Your task to perform on an android device: Open Chrome and go to settings Image 0: 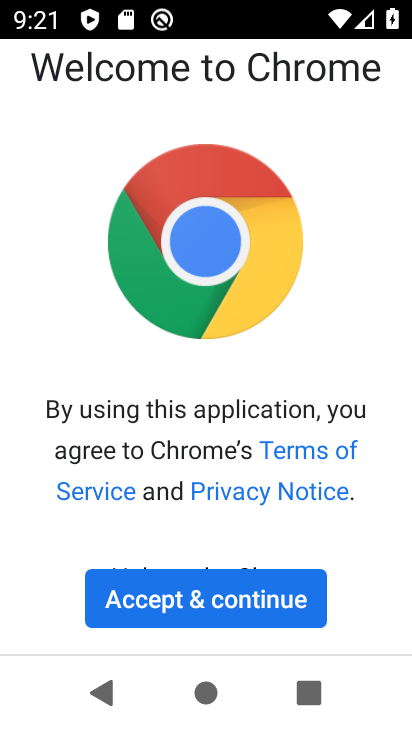
Step 0: click (267, 612)
Your task to perform on an android device: Open Chrome and go to settings Image 1: 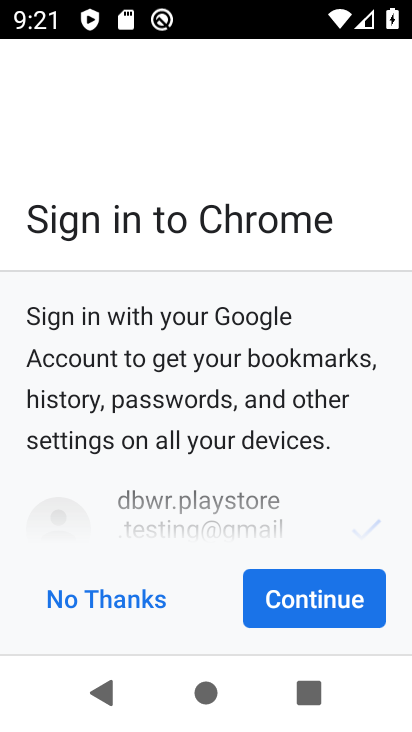
Step 1: click (321, 610)
Your task to perform on an android device: Open Chrome and go to settings Image 2: 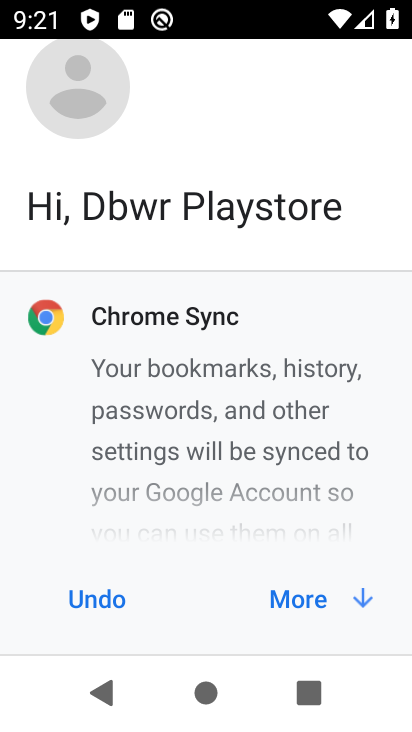
Step 2: click (321, 610)
Your task to perform on an android device: Open Chrome and go to settings Image 3: 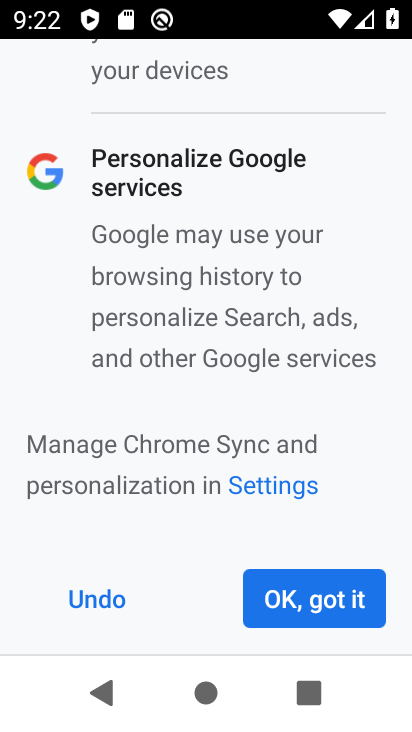
Step 3: click (320, 609)
Your task to perform on an android device: Open Chrome and go to settings Image 4: 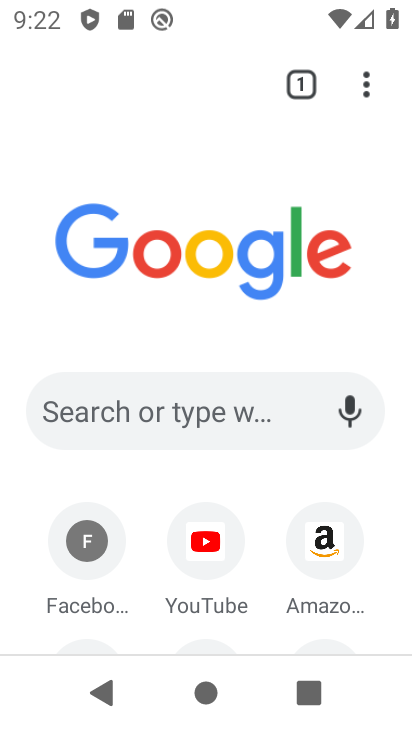
Step 4: task complete